Your task to perform on an android device: change the clock display to digital Image 0: 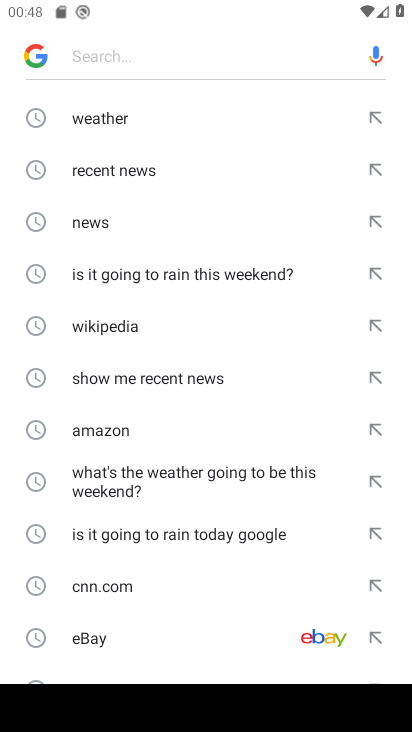
Step 0: press home button
Your task to perform on an android device: change the clock display to digital Image 1: 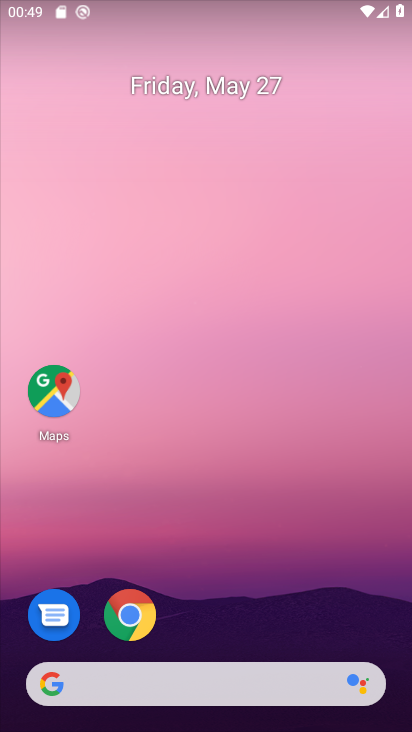
Step 1: drag from (396, 637) to (409, 272)
Your task to perform on an android device: change the clock display to digital Image 2: 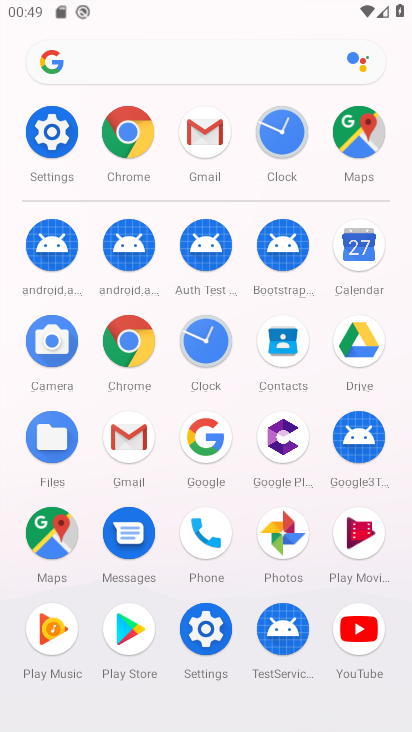
Step 2: click (213, 344)
Your task to perform on an android device: change the clock display to digital Image 3: 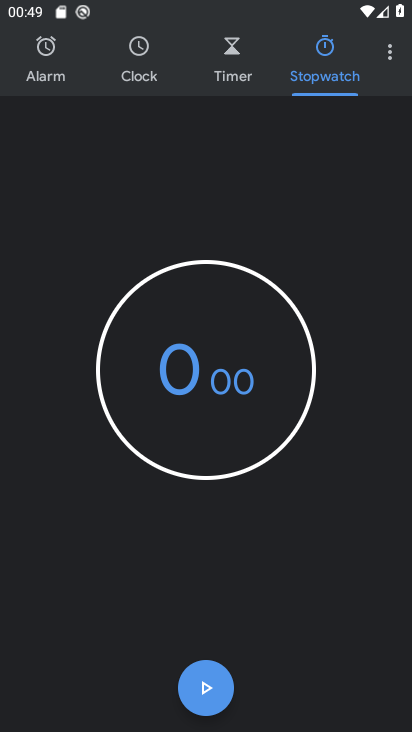
Step 3: press home button
Your task to perform on an android device: change the clock display to digital Image 4: 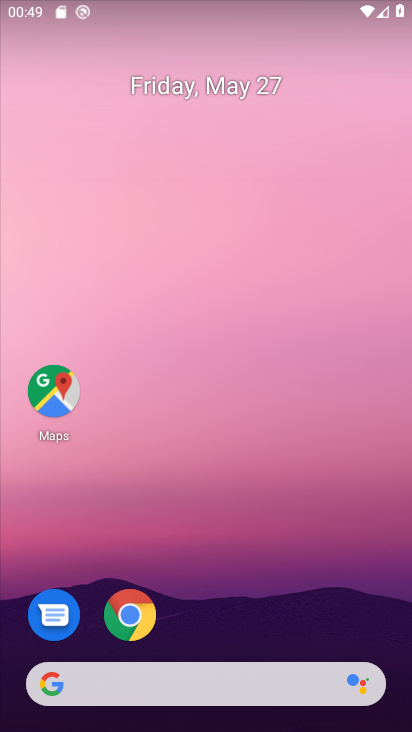
Step 4: drag from (289, 634) to (291, 269)
Your task to perform on an android device: change the clock display to digital Image 5: 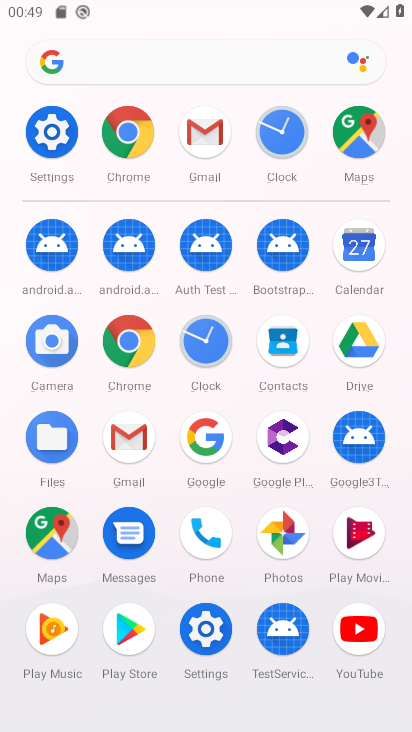
Step 5: click (203, 371)
Your task to perform on an android device: change the clock display to digital Image 6: 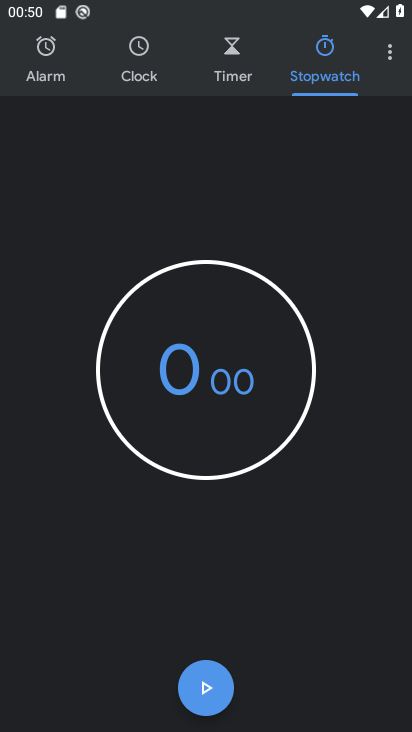
Step 6: click (390, 58)
Your task to perform on an android device: change the clock display to digital Image 7: 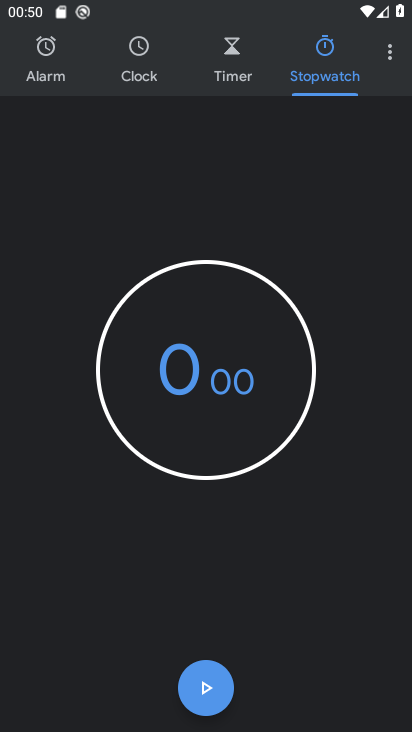
Step 7: click (386, 59)
Your task to perform on an android device: change the clock display to digital Image 8: 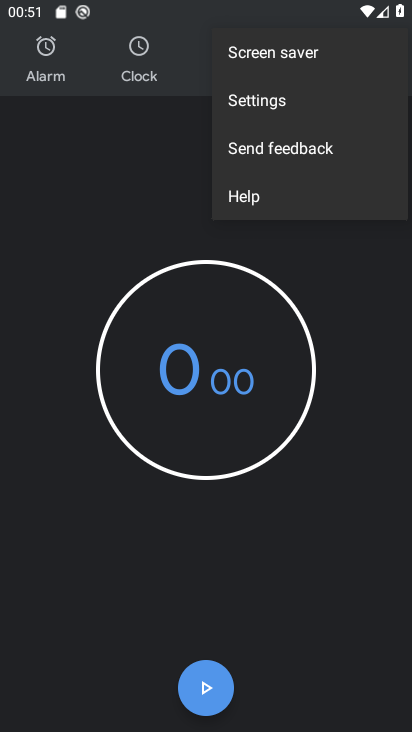
Step 8: click (259, 86)
Your task to perform on an android device: change the clock display to digital Image 9: 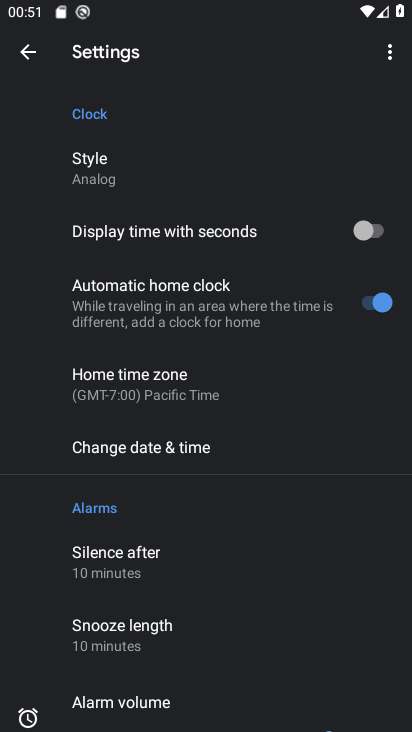
Step 9: click (104, 179)
Your task to perform on an android device: change the clock display to digital Image 10: 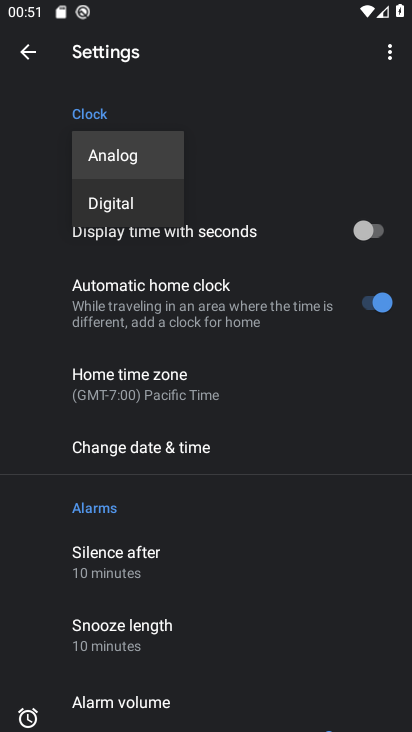
Step 10: click (145, 214)
Your task to perform on an android device: change the clock display to digital Image 11: 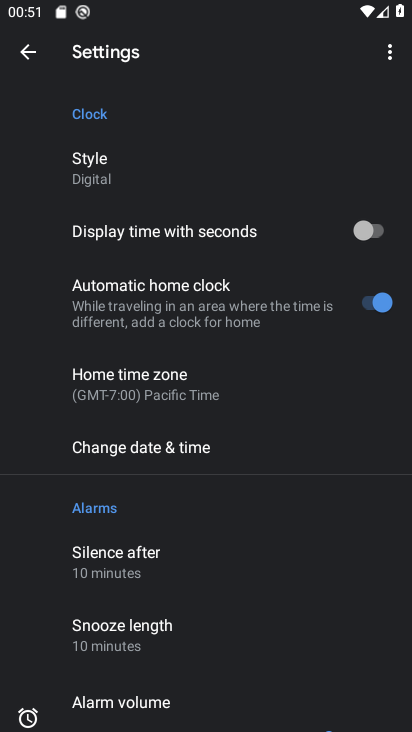
Step 11: task complete